Your task to perform on an android device: turn pop-ups on in chrome Image 0: 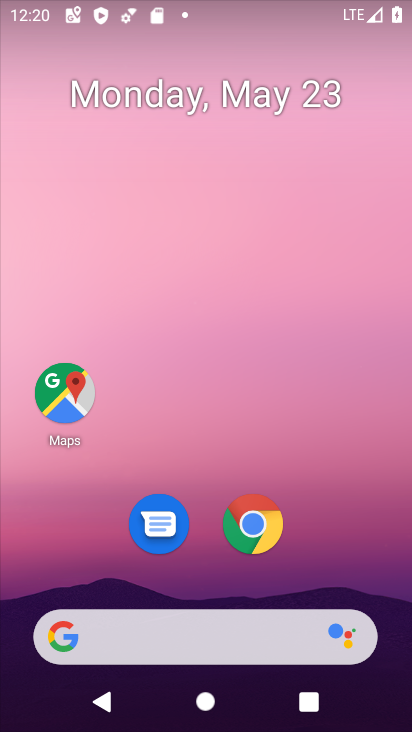
Step 0: click (255, 520)
Your task to perform on an android device: turn pop-ups on in chrome Image 1: 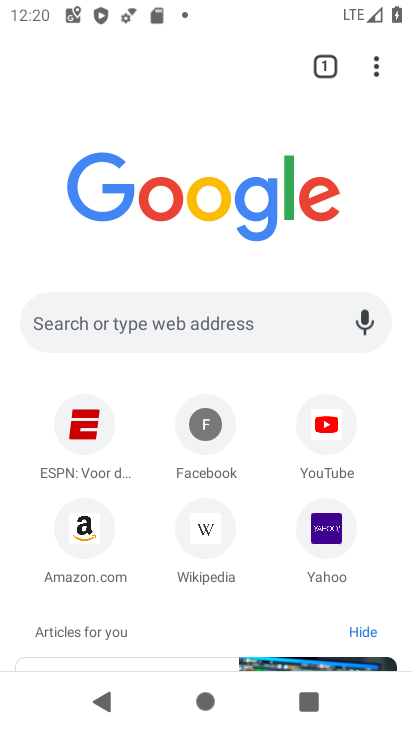
Step 1: click (370, 68)
Your task to perform on an android device: turn pop-ups on in chrome Image 2: 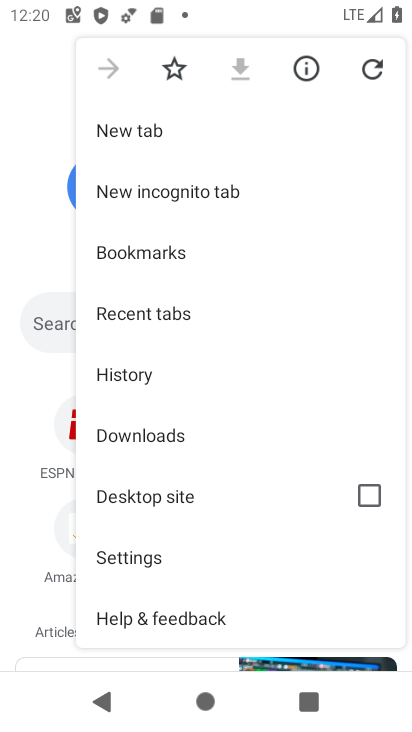
Step 2: click (151, 558)
Your task to perform on an android device: turn pop-ups on in chrome Image 3: 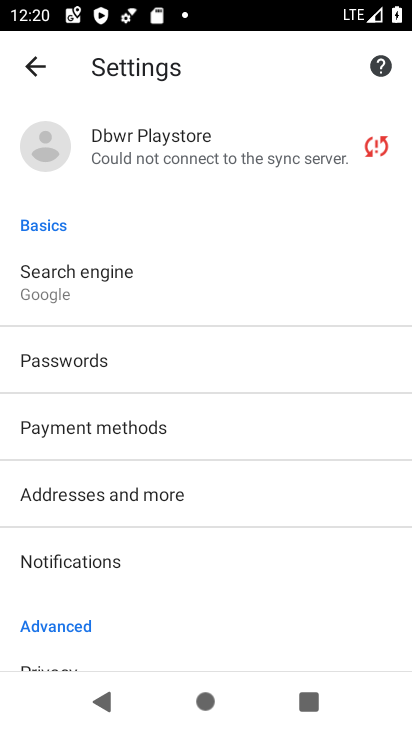
Step 3: drag from (224, 556) to (252, 188)
Your task to perform on an android device: turn pop-ups on in chrome Image 4: 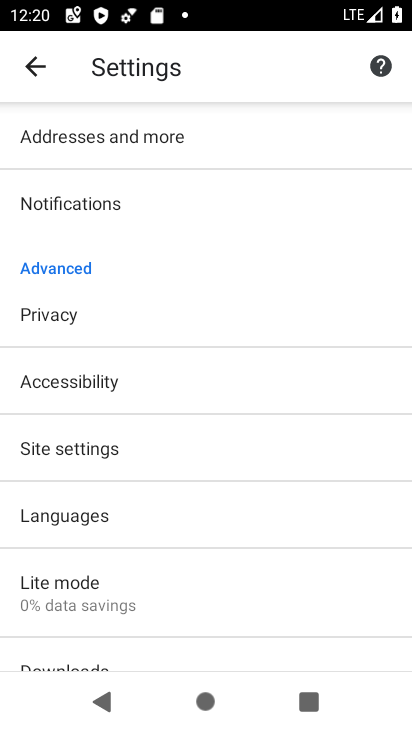
Step 4: click (185, 444)
Your task to perform on an android device: turn pop-ups on in chrome Image 5: 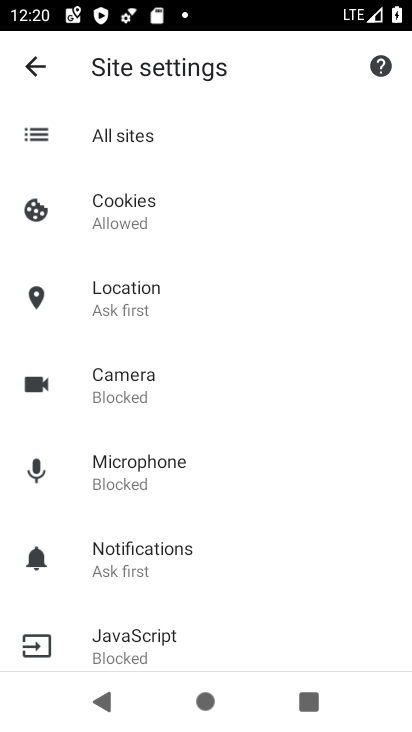
Step 5: drag from (226, 530) to (236, 228)
Your task to perform on an android device: turn pop-ups on in chrome Image 6: 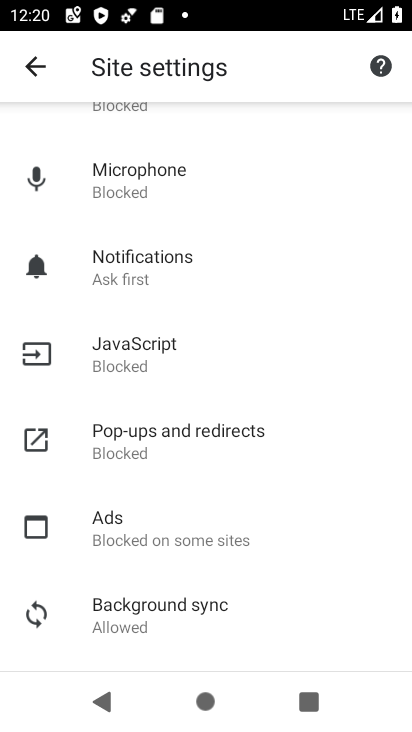
Step 6: click (220, 435)
Your task to perform on an android device: turn pop-ups on in chrome Image 7: 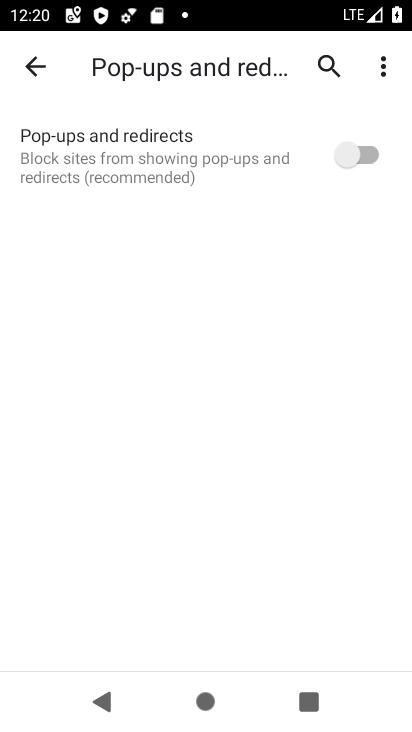
Step 7: click (345, 150)
Your task to perform on an android device: turn pop-ups on in chrome Image 8: 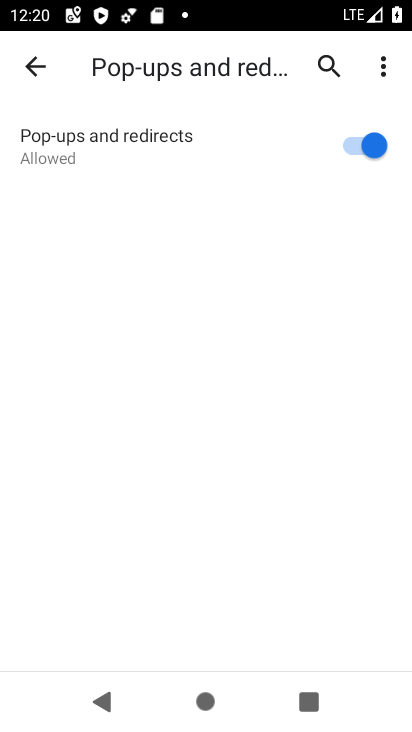
Step 8: task complete